Your task to perform on an android device: Go to wifi settings Image 0: 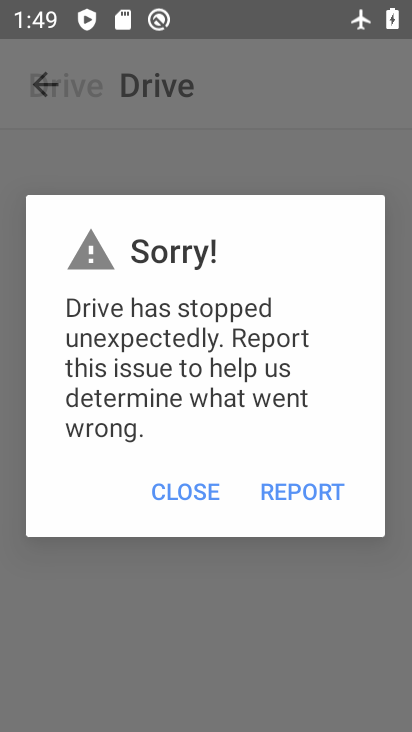
Step 0: press home button
Your task to perform on an android device: Go to wifi settings Image 1: 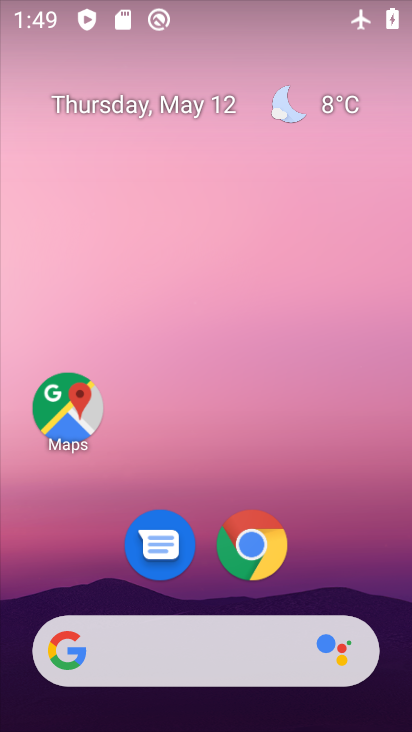
Step 1: drag from (389, 629) to (295, 45)
Your task to perform on an android device: Go to wifi settings Image 2: 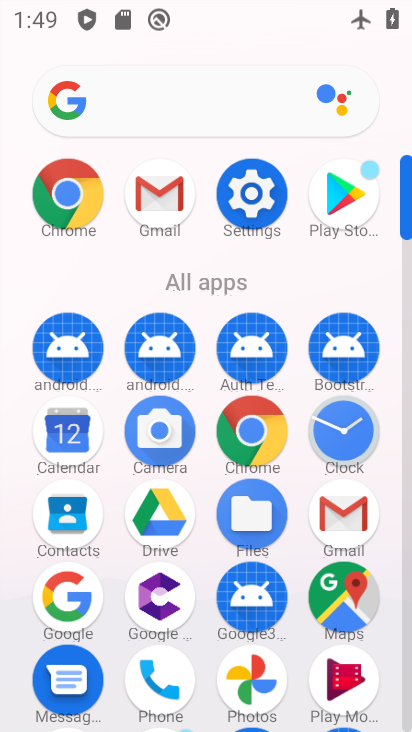
Step 2: click (405, 690)
Your task to perform on an android device: Go to wifi settings Image 3: 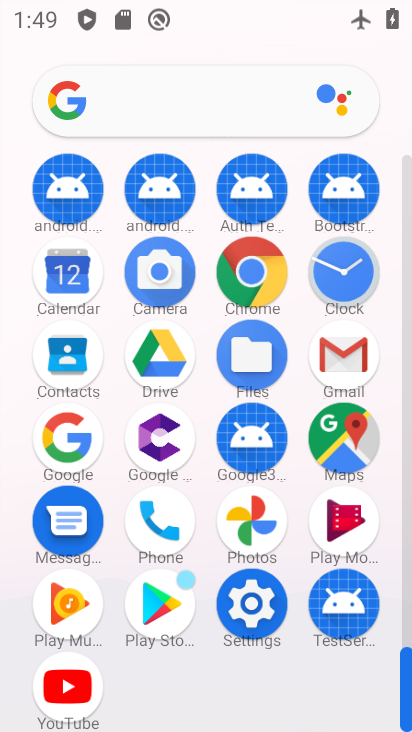
Step 3: click (250, 599)
Your task to perform on an android device: Go to wifi settings Image 4: 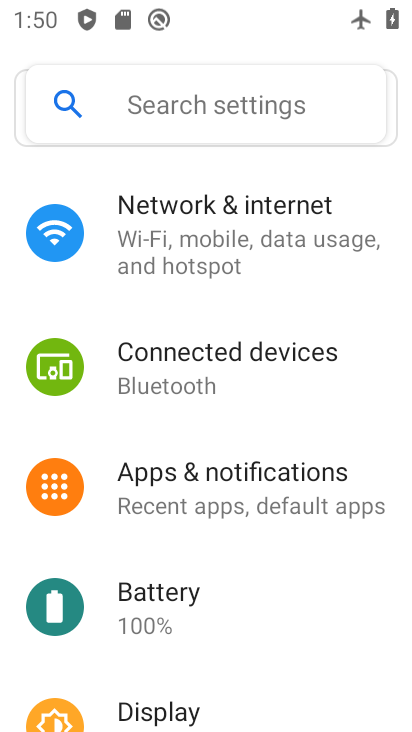
Step 4: click (160, 225)
Your task to perform on an android device: Go to wifi settings Image 5: 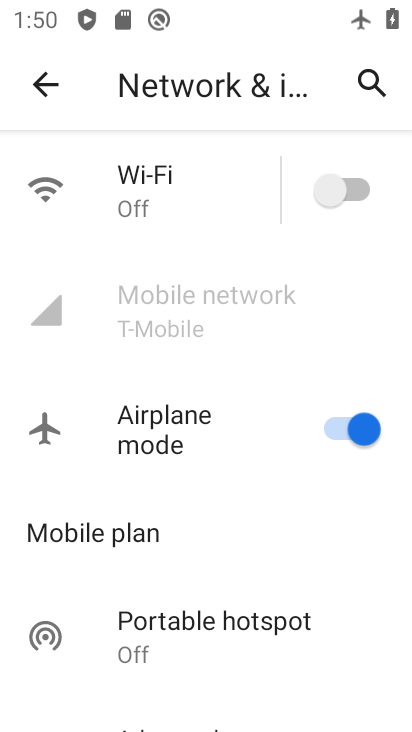
Step 5: click (45, 184)
Your task to perform on an android device: Go to wifi settings Image 6: 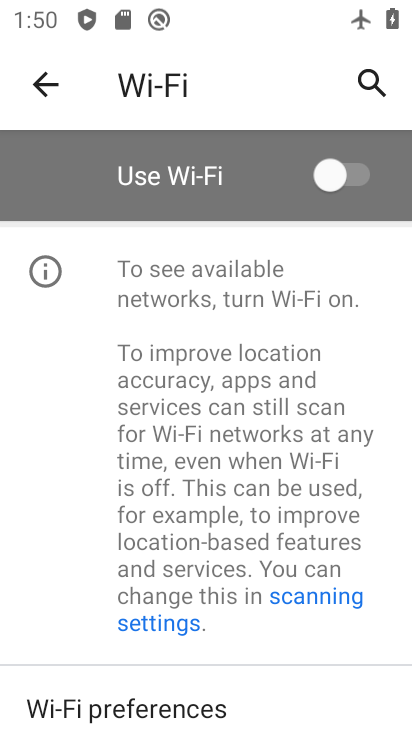
Step 6: task complete